Your task to perform on an android device: refresh tabs in the chrome app Image 0: 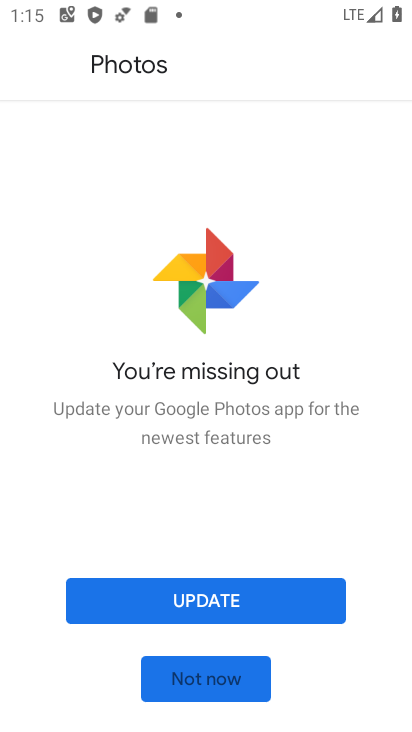
Step 0: press home button
Your task to perform on an android device: refresh tabs in the chrome app Image 1: 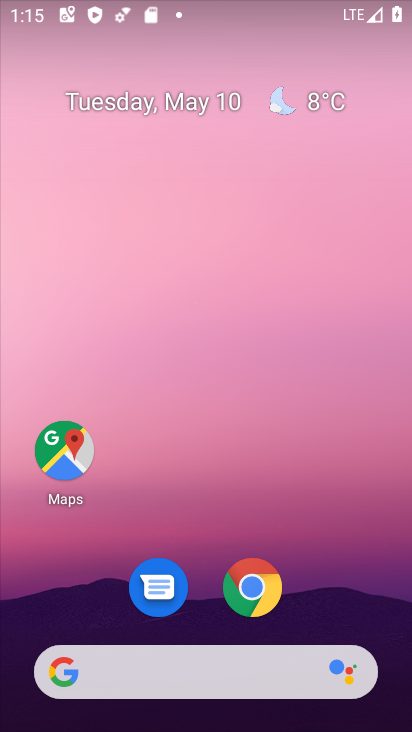
Step 1: click (251, 578)
Your task to perform on an android device: refresh tabs in the chrome app Image 2: 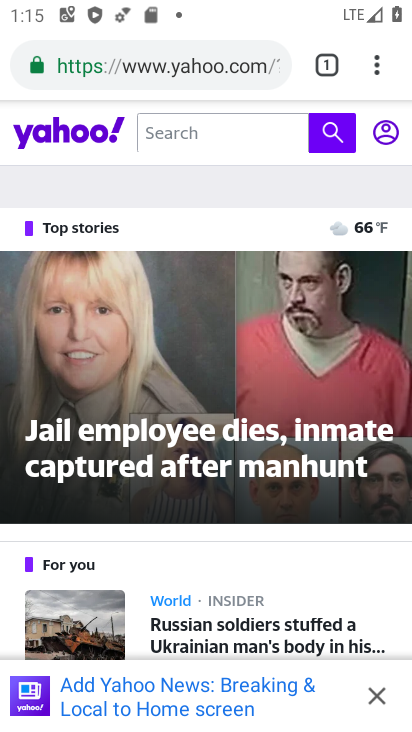
Step 2: click (377, 64)
Your task to perform on an android device: refresh tabs in the chrome app Image 3: 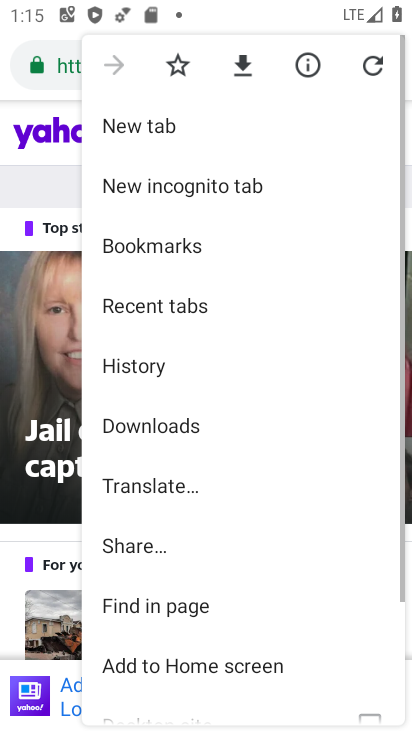
Step 3: click (374, 65)
Your task to perform on an android device: refresh tabs in the chrome app Image 4: 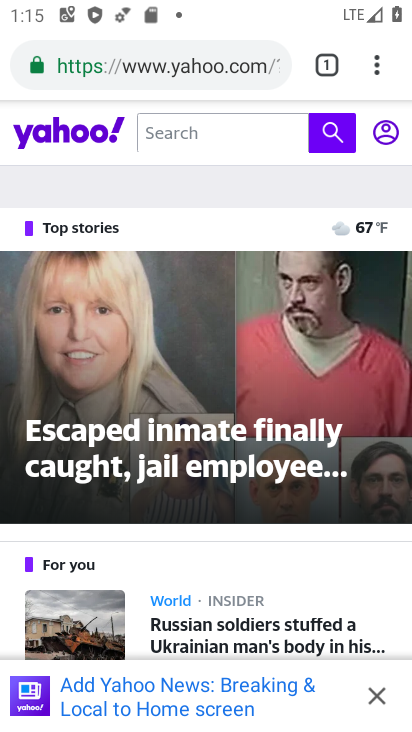
Step 4: task complete